Your task to perform on an android device: Open privacy settings Image 0: 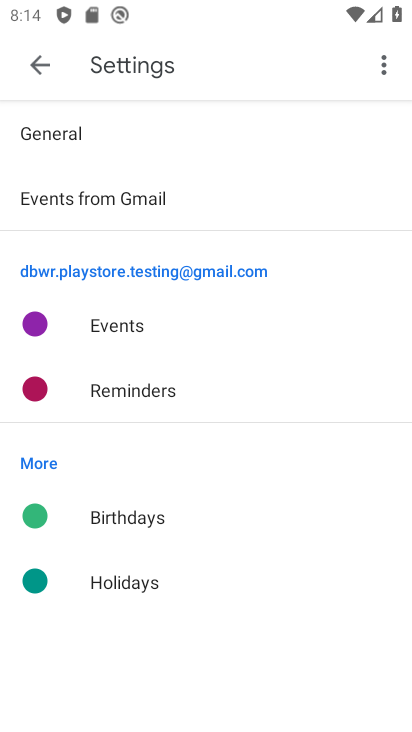
Step 0: press home button
Your task to perform on an android device: Open privacy settings Image 1: 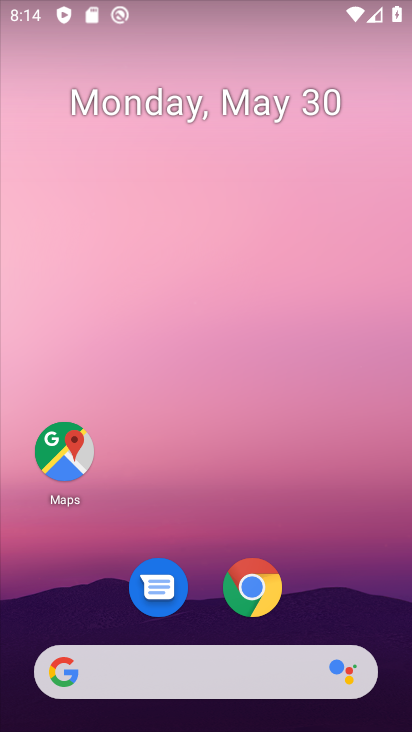
Step 1: drag from (209, 536) to (274, 1)
Your task to perform on an android device: Open privacy settings Image 2: 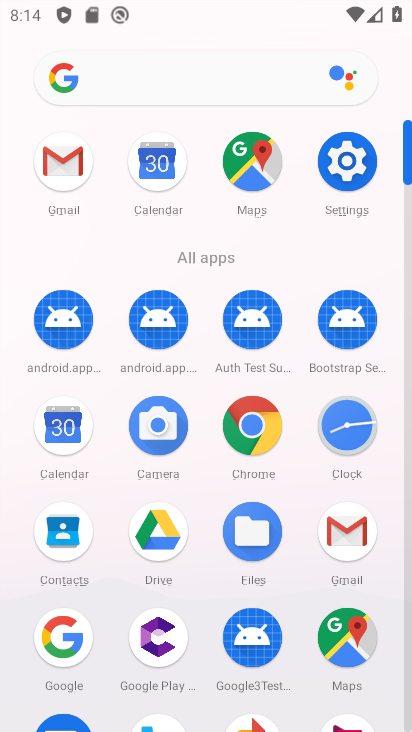
Step 2: click (345, 166)
Your task to perform on an android device: Open privacy settings Image 3: 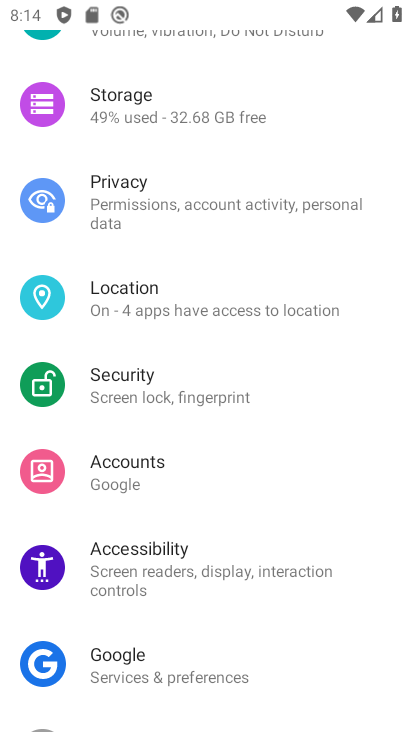
Step 3: click (171, 201)
Your task to perform on an android device: Open privacy settings Image 4: 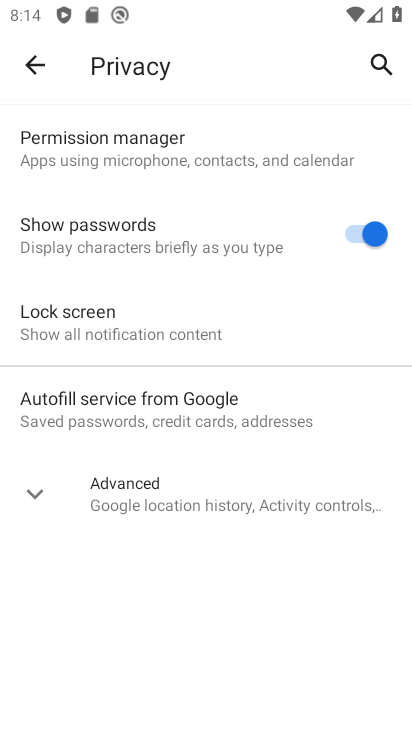
Step 4: task complete